Your task to perform on an android device: Search for hotels in San Diego Image 0: 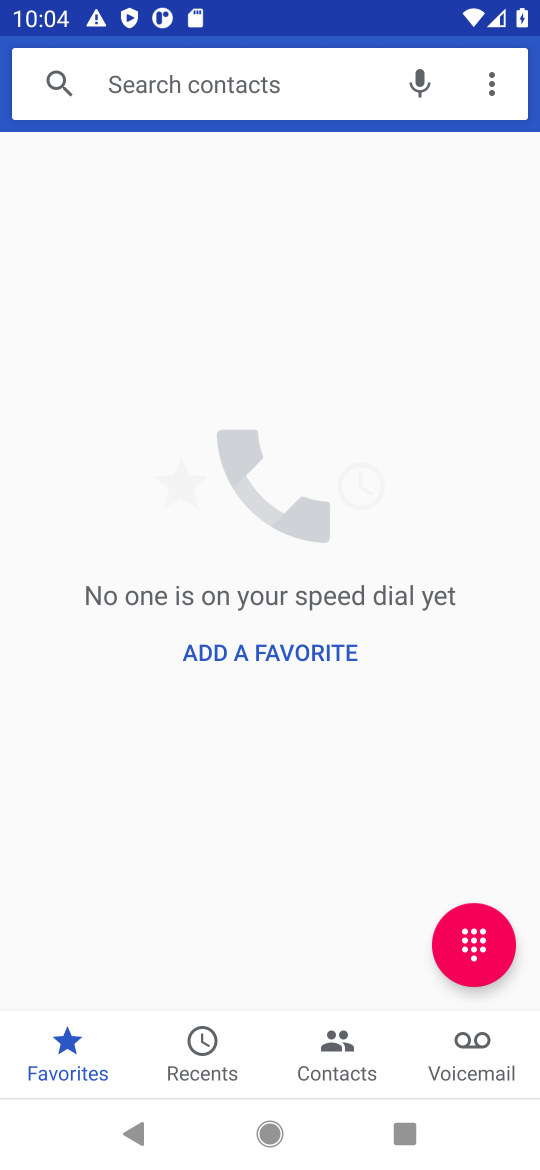
Step 0: press home button
Your task to perform on an android device: Search for hotels in San Diego Image 1: 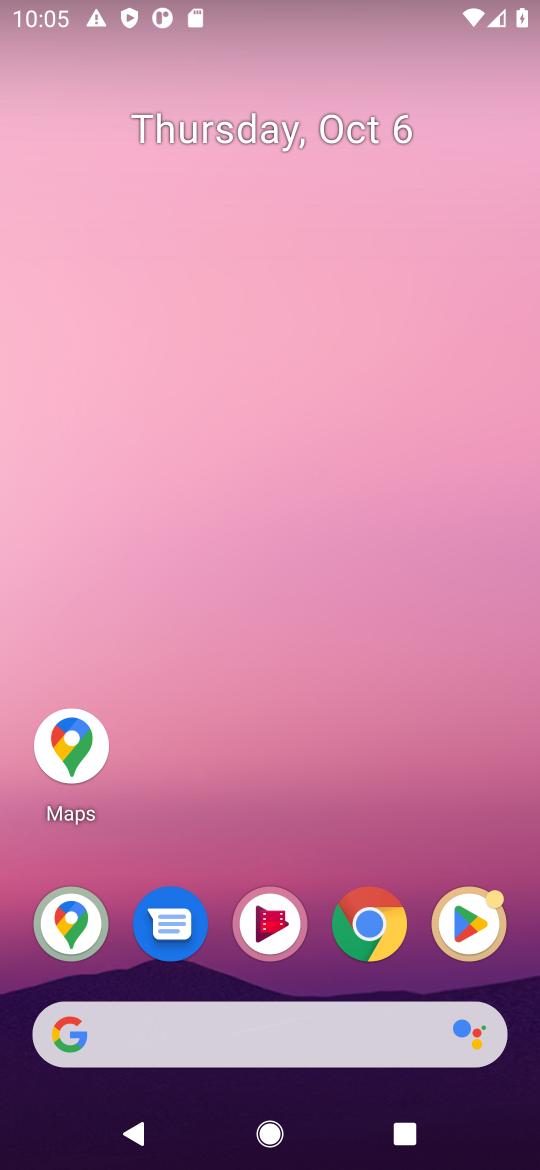
Step 1: click (71, 767)
Your task to perform on an android device: Search for hotels in San Diego Image 2: 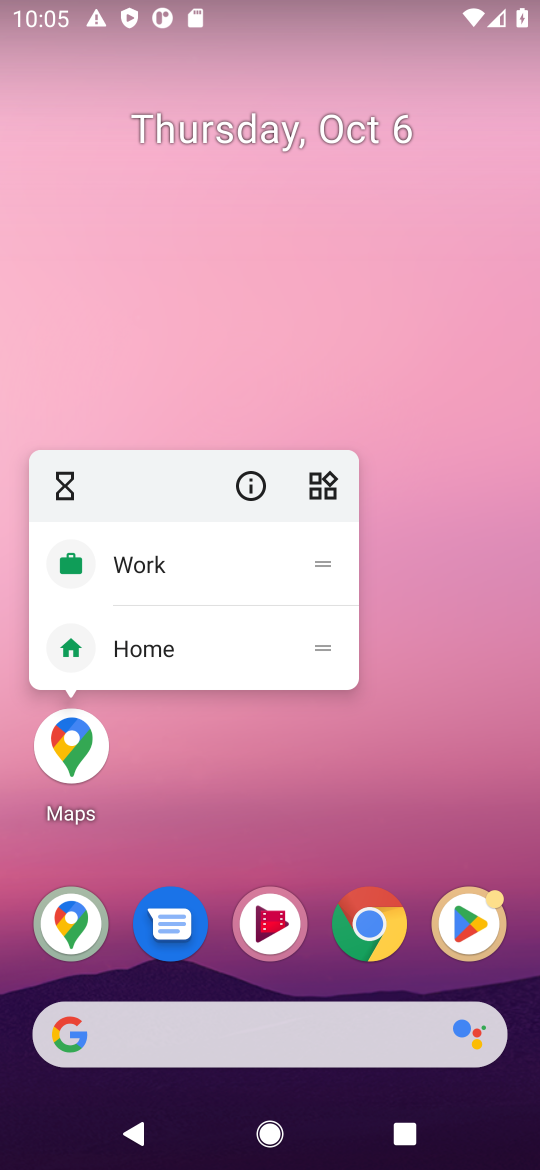
Step 2: click (67, 740)
Your task to perform on an android device: Search for hotels in San Diego Image 3: 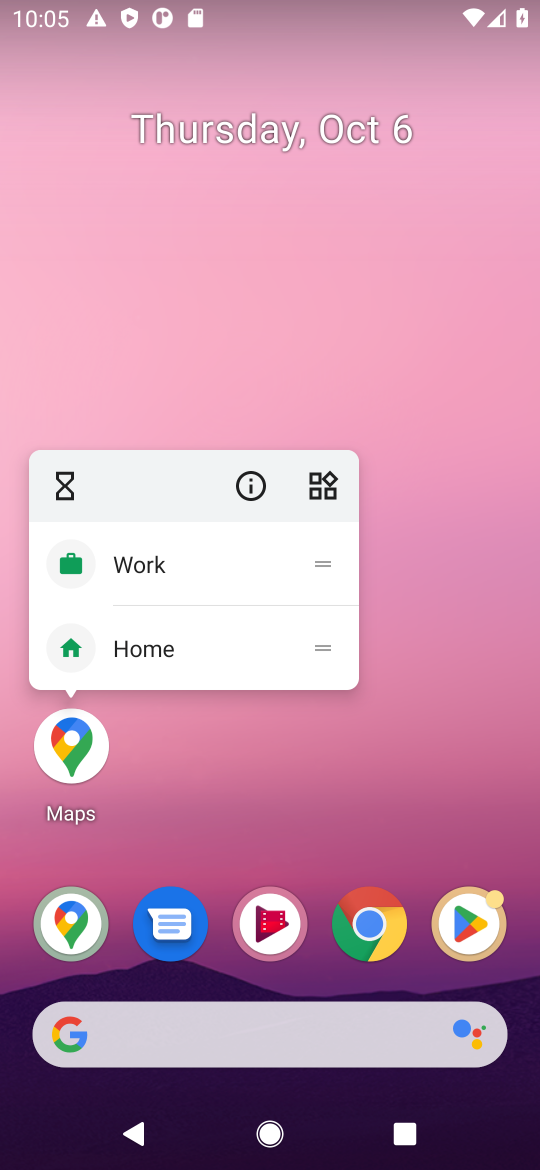
Step 3: click (67, 740)
Your task to perform on an android device: Search for hotels in San Diego Image 4: 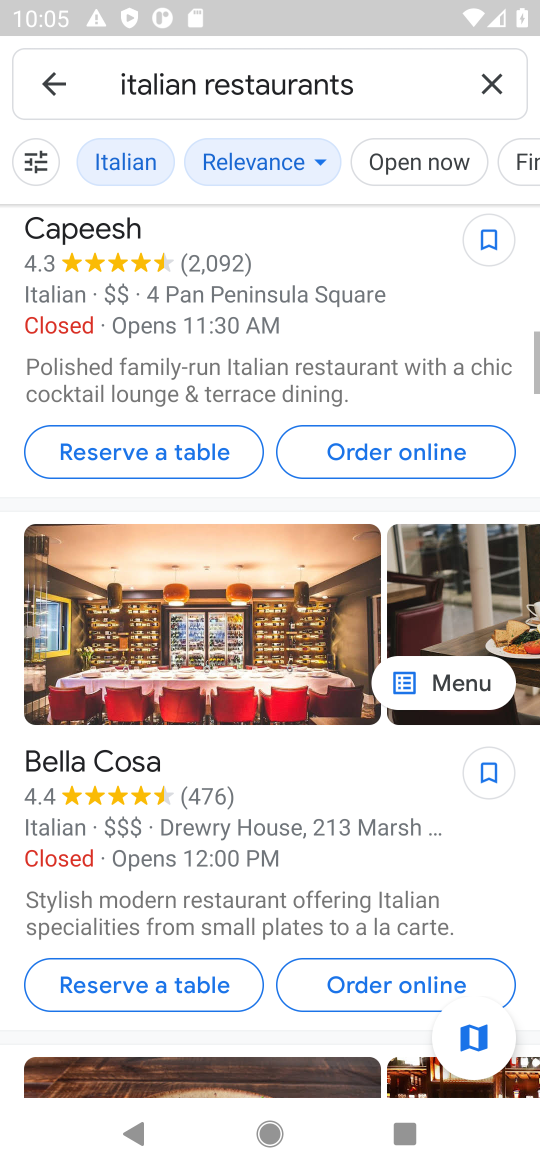
Step 4: click (483, 77)
Your task to perform on an android device: Search for hotels in San Diego Image 5: 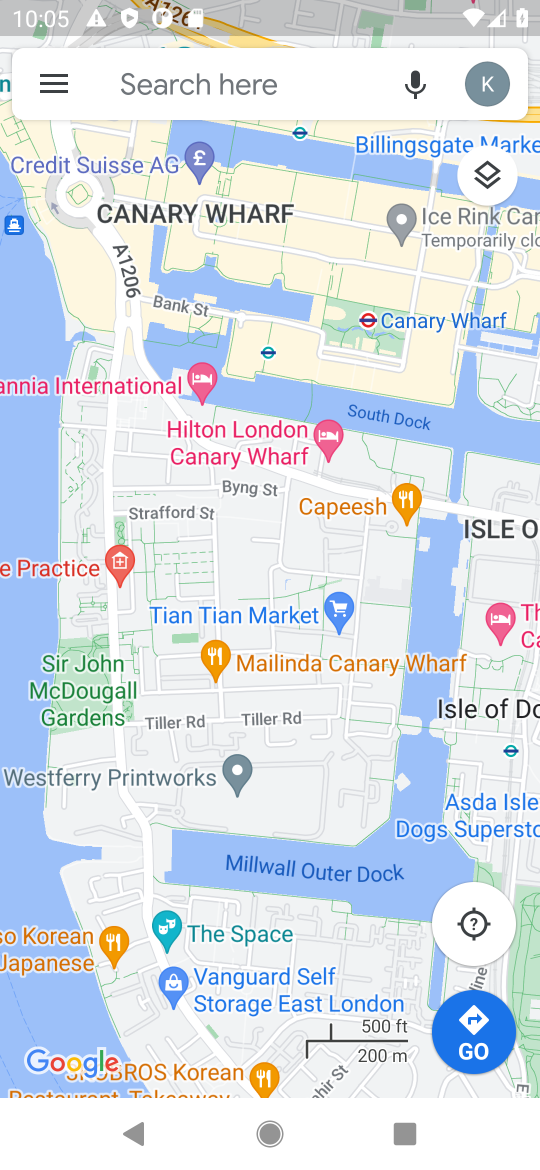
Step 5: click (209, 89)
Your task to perform on an android device: Search for hotels in San Diego Image 6: 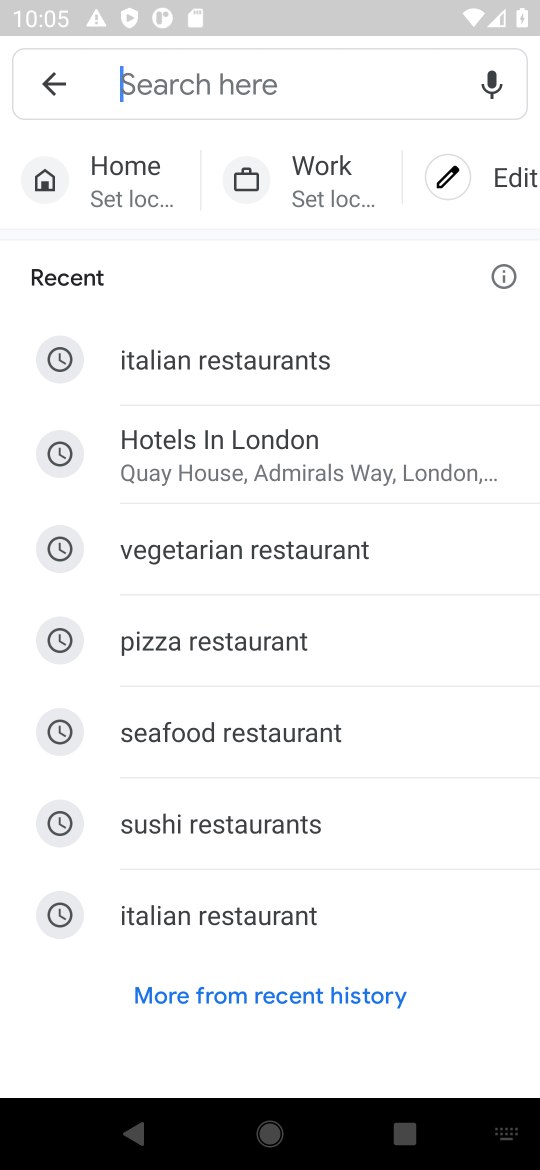
Step 6: type "hotels in San Diego"
Your task to perform on an android device: Search for hotels in San Diego Image 7: 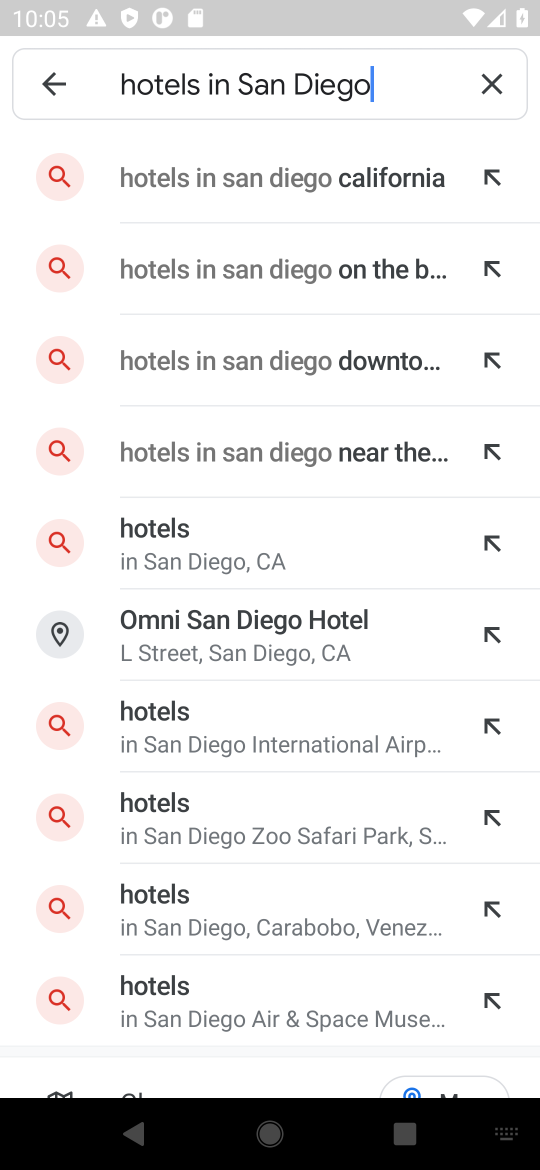
Step 7: click (241, 176)
Your task to perform on an android device: Search for hotels in San Diego Image 8: 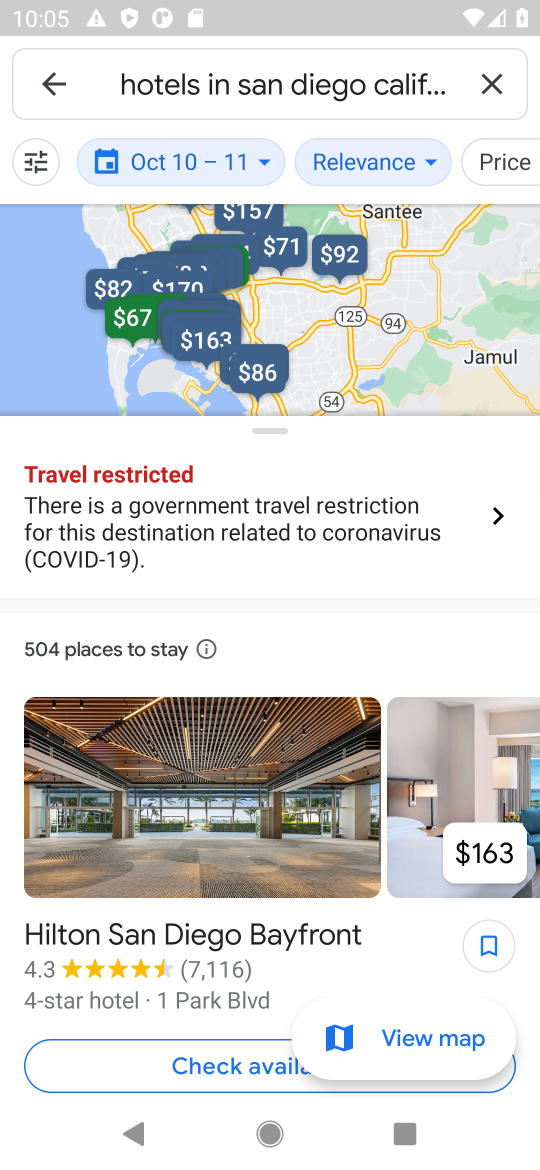
Step 8: task complete